Your task to perform on an android device: change the upload size in google photos Image 0: 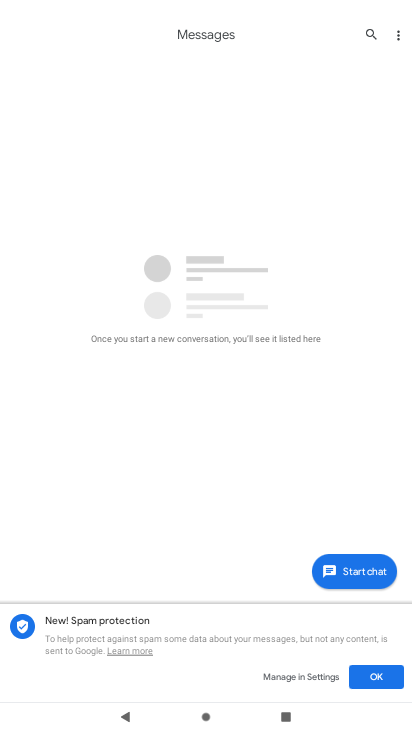
Step 0: press home button
Your task to perform on an android device: change the upload size in google photos Image 1: 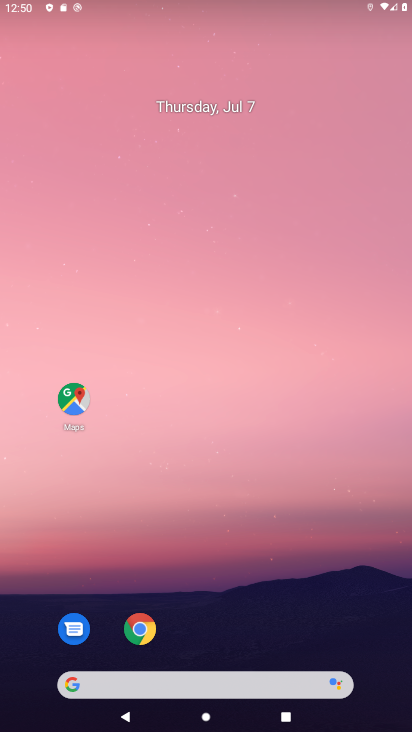
Step 1: drag from (198, 640) to (254, 83)
Your task to perform on an android device: change the upload size in google photos Image 2: 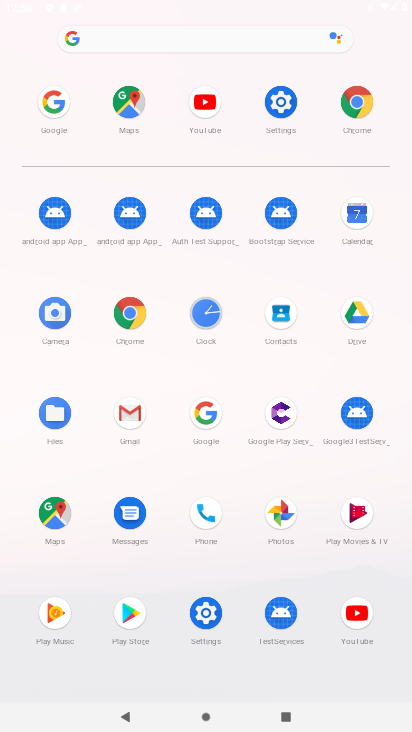
Step 2: click (286, 509)
Your task to perform on an android device: change the upload size in google photos Image 3: 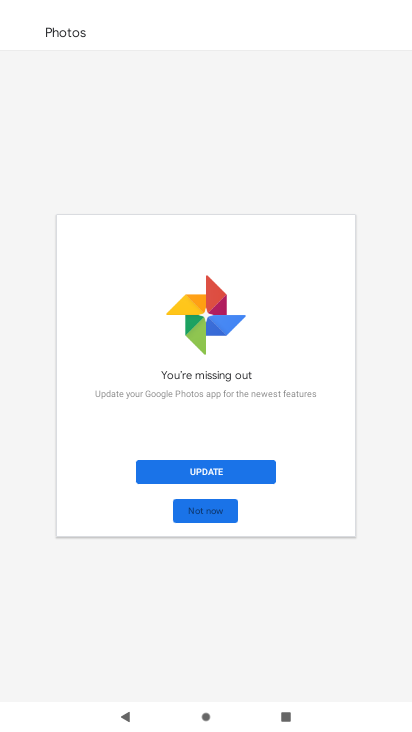
Step 3: click (220, 471)
Your task to perform on an android device: change the upload size in google photos Image 4: 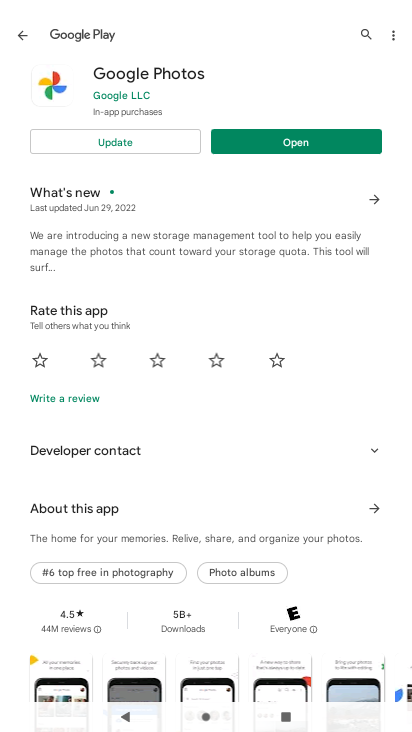
Step 4: click (168, 144)
Your task to perform on an android device: change the upload size in google photos Image 5: 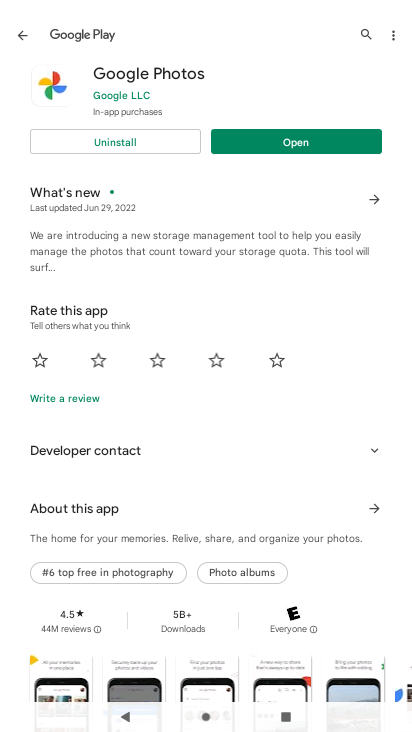
Step 5: click (319, 146)
Your task to perform on an android device: change the upload size in google photos Image 6: 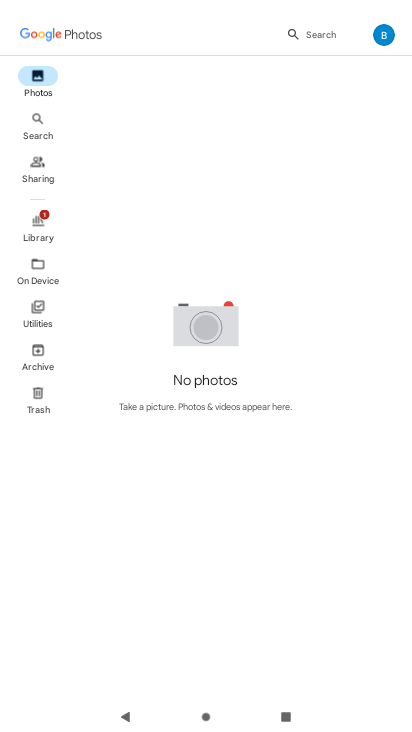
Step 6: click (384, 36)
Your task to perform on an android device: change the upload size in google photos Image 7: 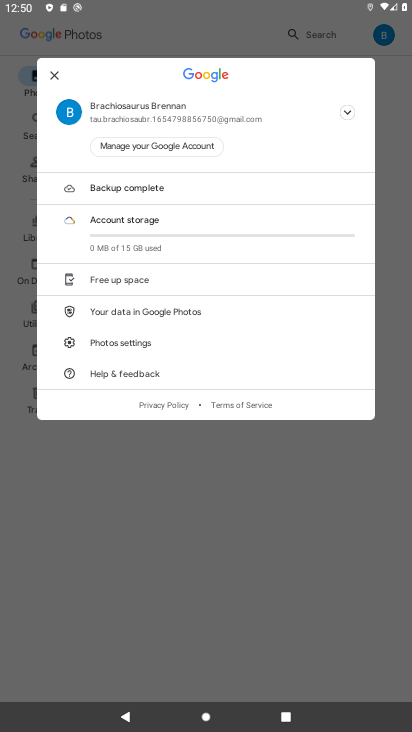
Step 7: click (124, 340)
Your task to perform on an android device: change the upload size in google photos Image 8: 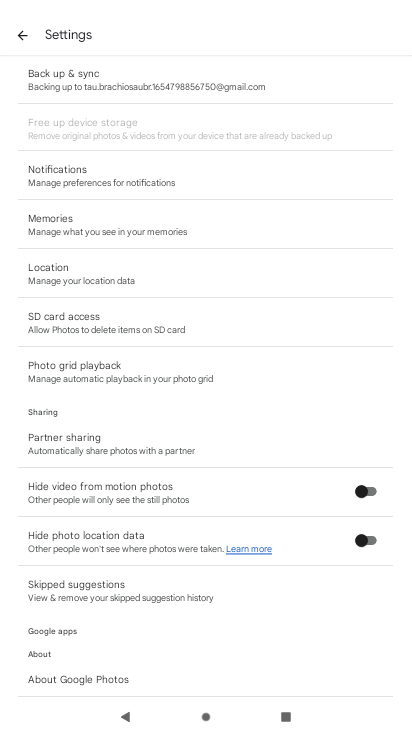
Step 8: click (140, 88)
Your task to perform on an android device: change the upload size in google photos Image 9: 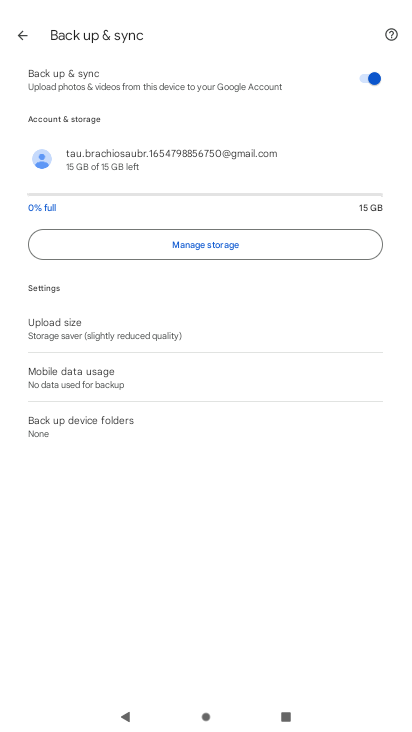
Step 9: click (112, 327)
Your task to perform on an android device: change the upload size in google photos Image 10: 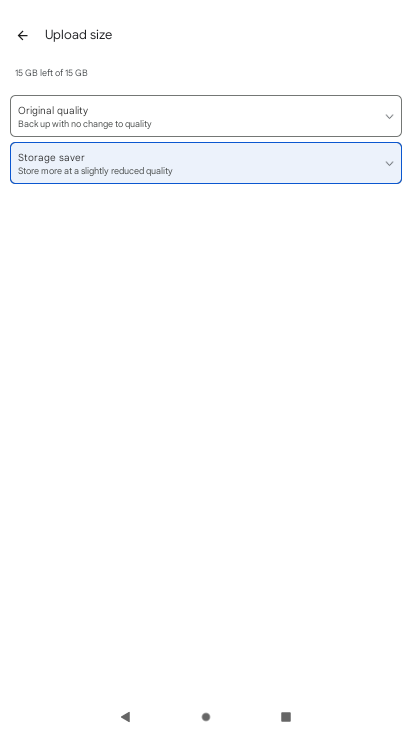
Step 10: click (71, 110)
Your task to perform on an android device: change the upload size in google photos Image 11: 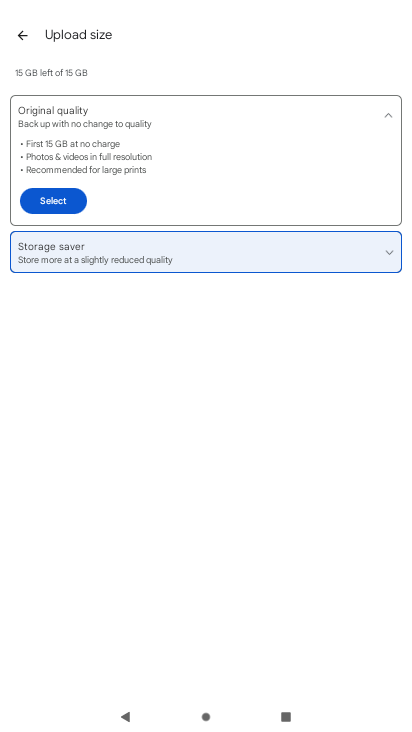
Step 11: click (61, 200)
Your task to perform on an android device: change the upload size in google photos Image 12: 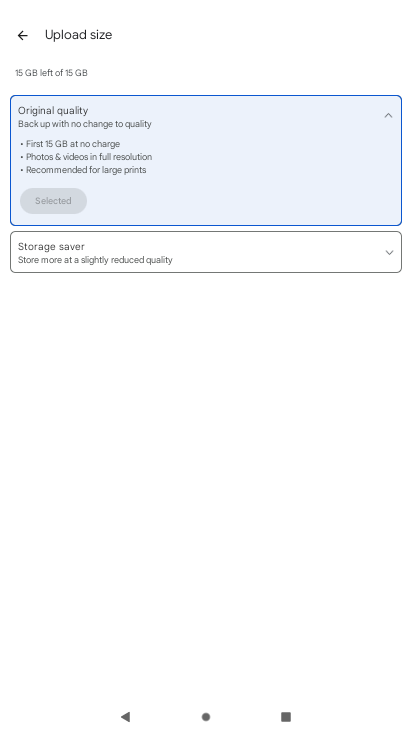
Step 12: task complete